Your task to perform on an android device: Do I have any events this weekend? Image 0: 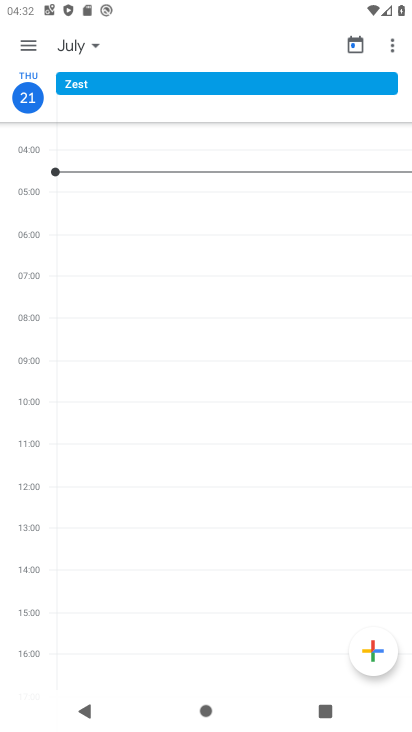
Step 0: press home button
Your task to perform on an android device: Do I have any events this weekend? Image 1: 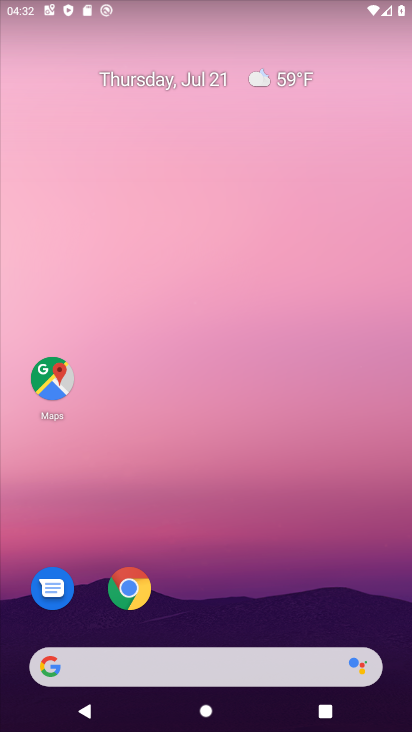
Step 1: drag from (289, 549) to (293, 116)
Your task to perform on an android device: Do I have any events this weekend? Image 2: 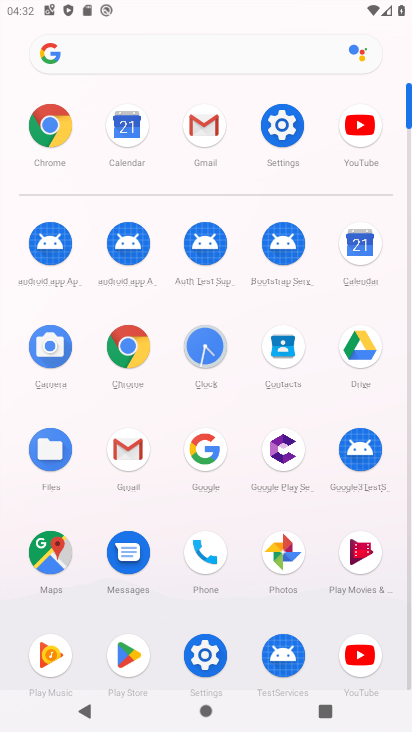
Step 2: click (361, 245)
Your task to perform on an android device: Do I have any events this weekend? Image 3: 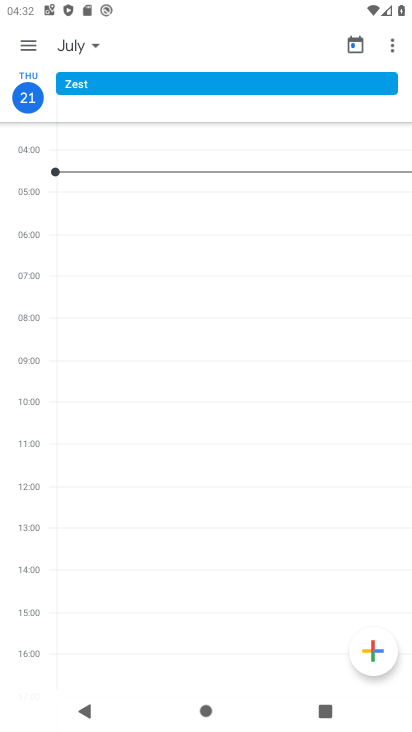
Step 3: click (32, 49)
Your task to perform on an android device: Do I have any events this weekend? Image 4: 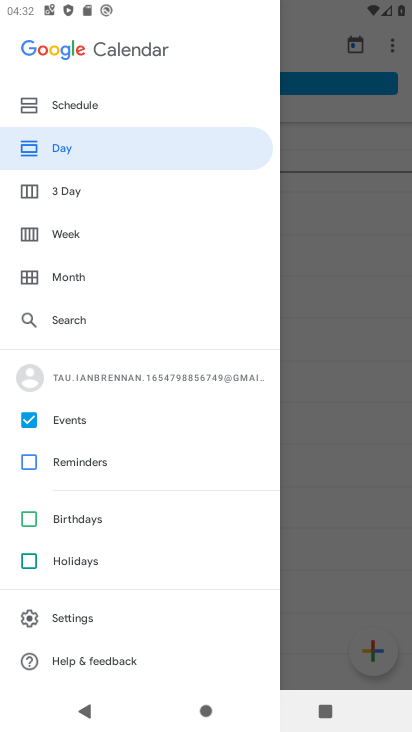
Step 4: click (72, 228)
Your task to perform on an android device: Do I have any events this weekend? Image 5: 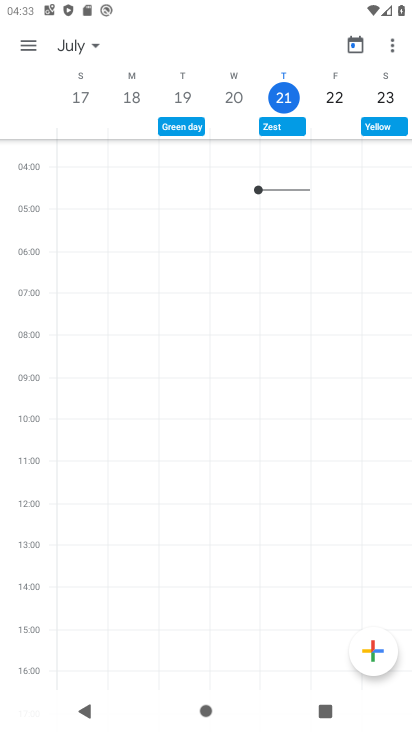
Step 5: task complete